Your task to perform on an android device: Search for seafood restaurants on Google Maps Image 0: 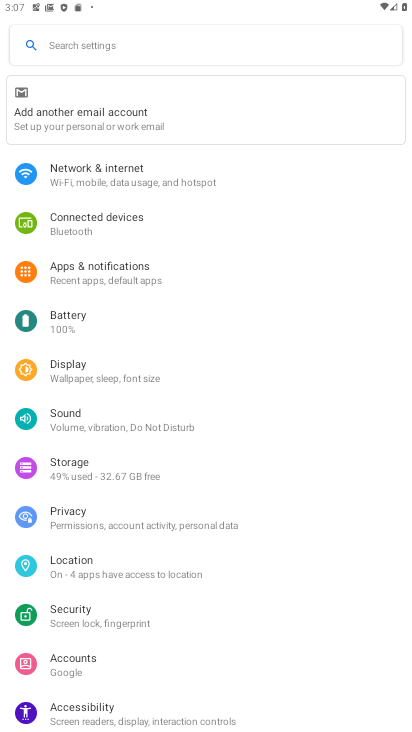
Step 0: press home button
Your task to perform on an android device: Search for seafood restaurants on Google Maps Image 1: 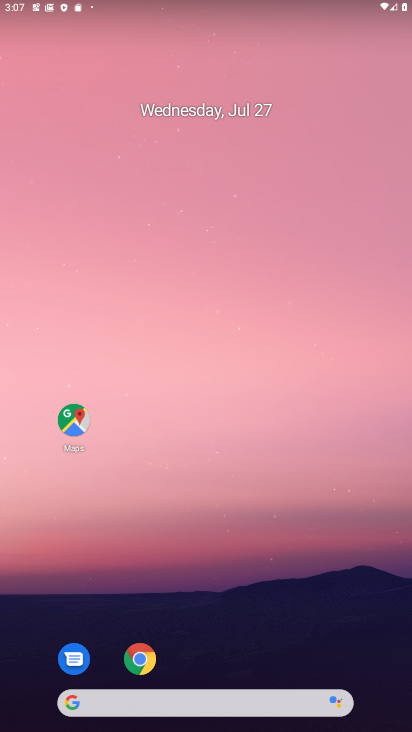
Step 1: click (77, 427)
Your task to perform on an android device: Search for seafood restaurants on Google Maps Image 2: 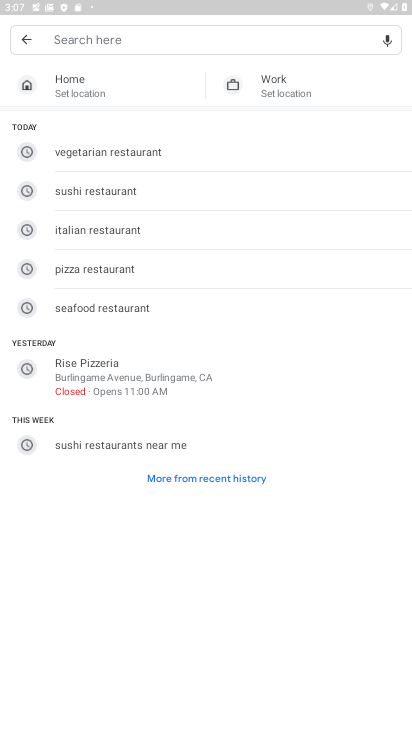
Step 2: click (120, 318)
Your task to perform on an android device: Search for seafood restaurants on Google Maps Image 3: 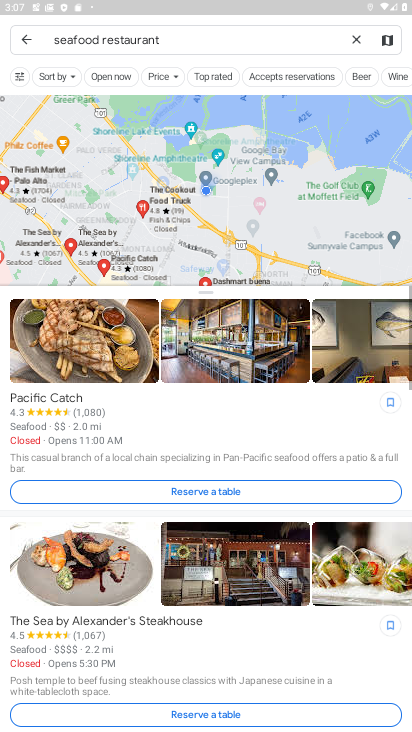
Step 3: task complete